Your task to perform on an android device: Open Yahoo.com Image 0: 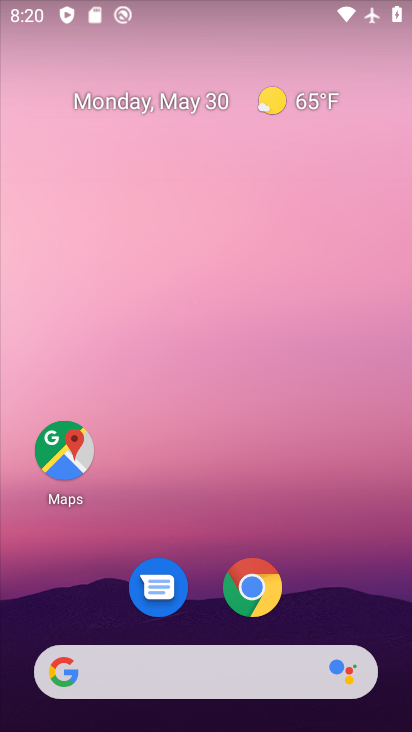
Step 0: press home button
Your task to perform on an android device: Open Yahoo.com Image 1: 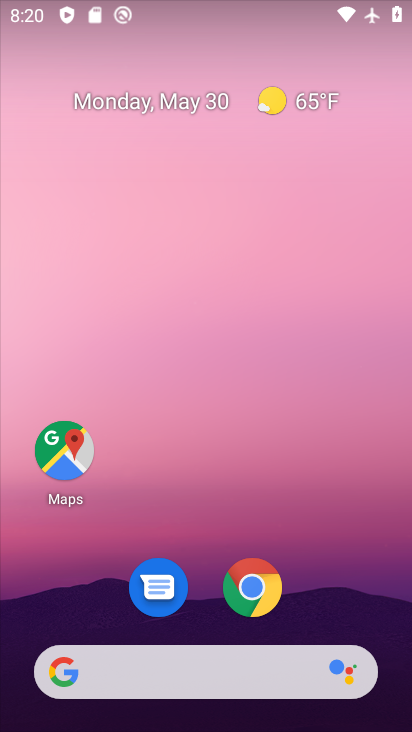
Step 1: click (259, 596)
Your task to perform on an android device: Open Yahoo.com Image 2: 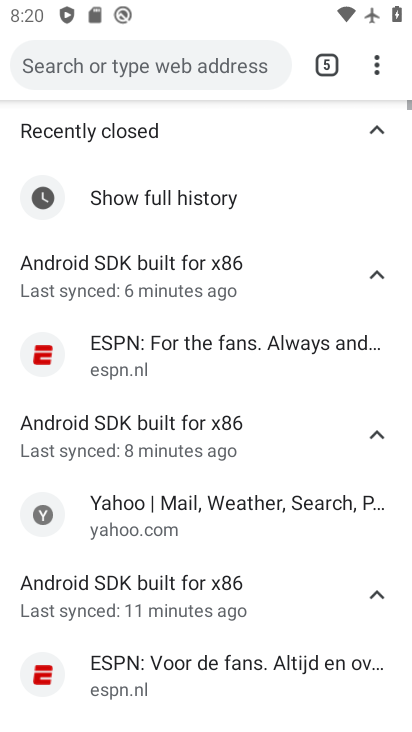
Step 2: drag from (380, 77) to (202, 137)
Your task to perform on an android device: Open Yahoo.com Image 3: 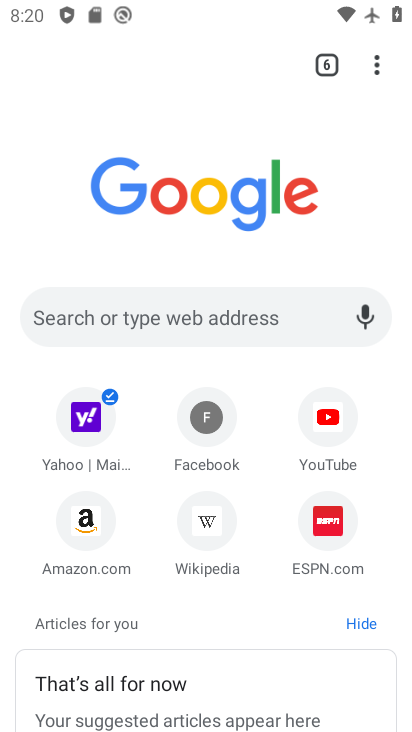
Step 3: click (90, 412)
Your task to perform on an android device: Open Yahoo.com Image 4: 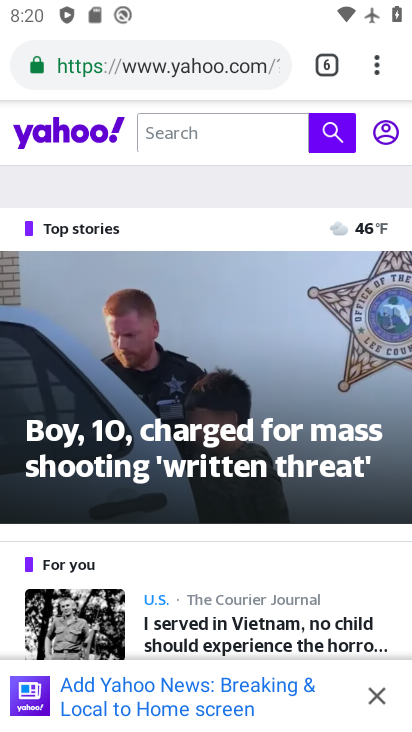
Step 4: task complete